Your task to perform on an android device: Go to wifi settings Image 0: 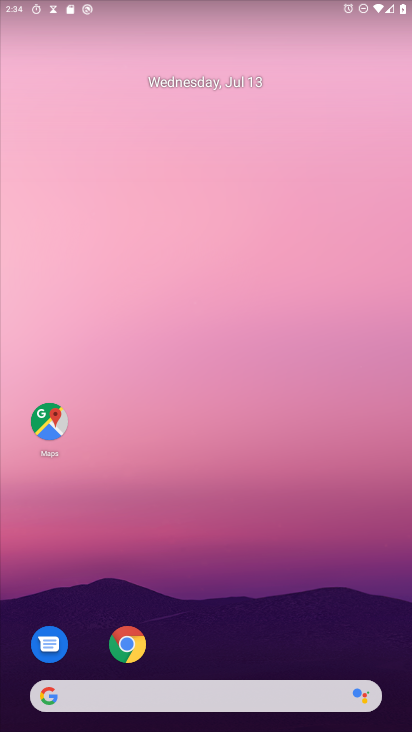
Step 0: press home button
Your task to perform on an android device: Go to wifi settings Image 1: 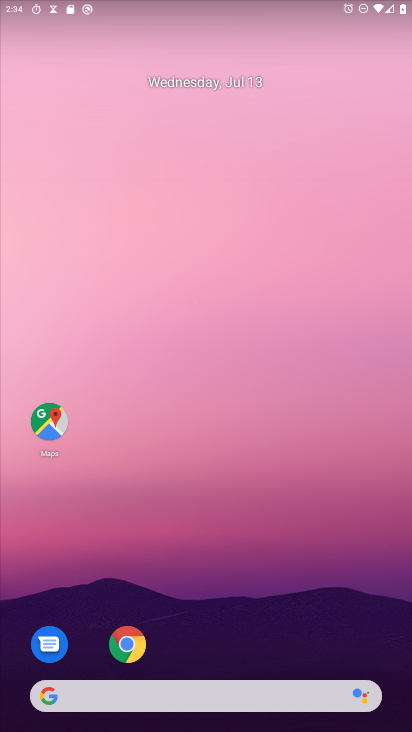
Step 1: drag from (220, 655) to (171, 76)
Your task to perform on an android device: Go to wifi settings Image 2: 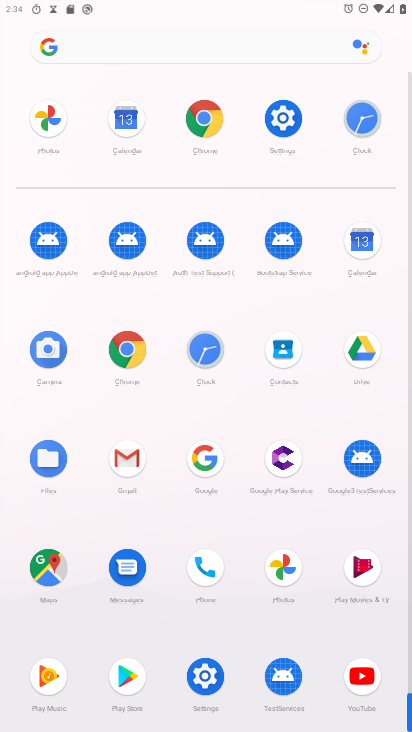
Step 2: click (280, 130)
Your task to perform on an android device: Go to wifi settings Image 3: 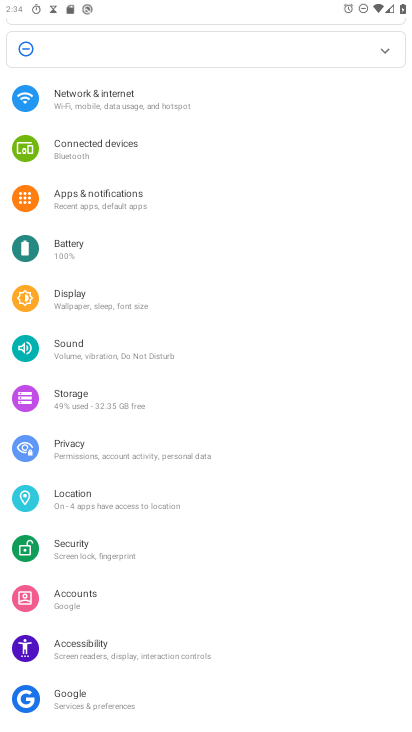
Step 3: click (177, 99)
Your task to perform on an android device: Go to wifi settings Image 4: 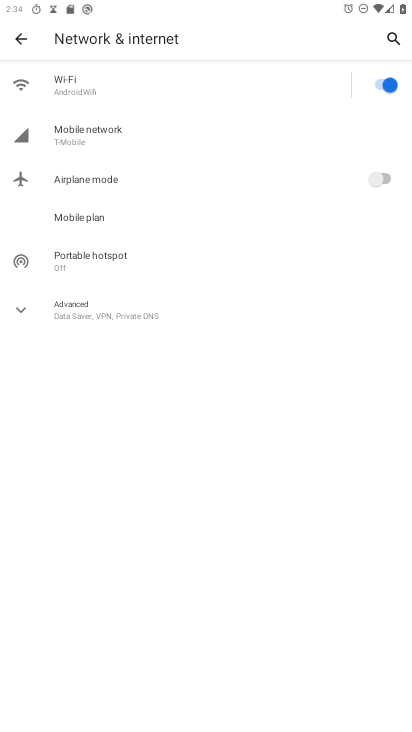
Step 4: click (96, 82)
Your task to perform on an android device: Go to wifi settings Image 5: 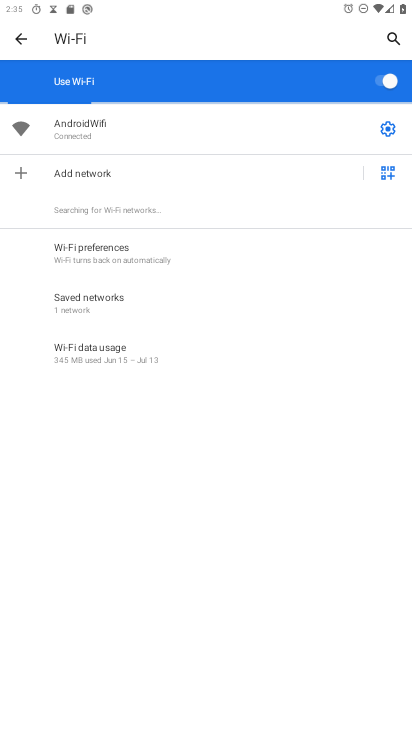
Step 5: task complete